Your task to perform on an android device: Is it going to rain this weekend? Image 0: 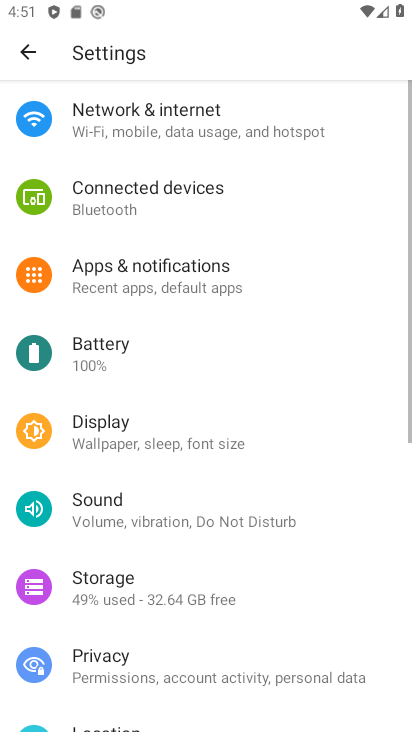
Step 0: press home button
Your task to perform on an android device: Is it going to rain this weekend? Image 1: 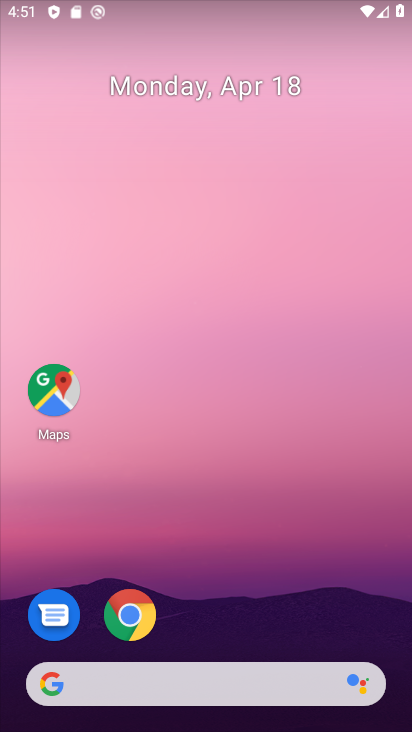
Step 1: drag from (225, 628) to (234, 172)
Your task to perform on an android device: Is it going to rain this weekend? Image 2: 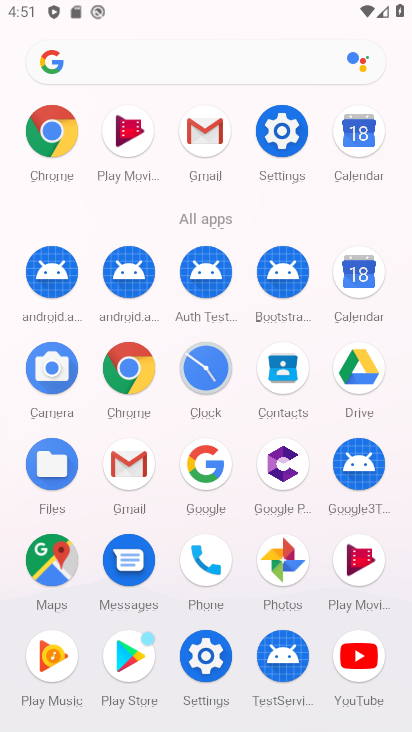
Step 2: click (141, 361)
Your task to perform on an android device: Is it going to rain this weekend? Image 3: 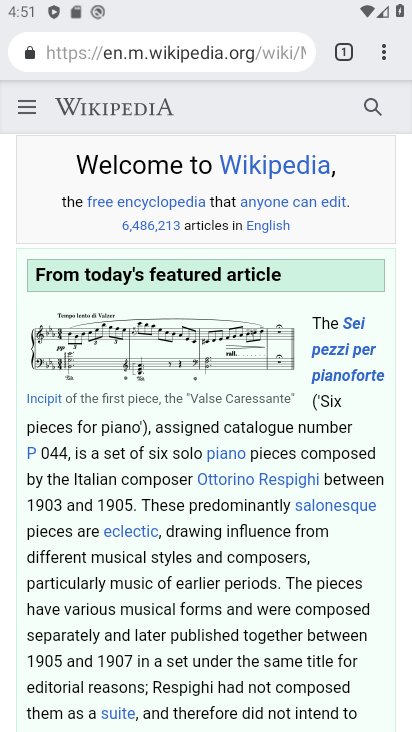
Step 3: drag from (383, 55) to (220, 108)
Your task to perform on an android device: Is it going to rain this weekend? Image 4: 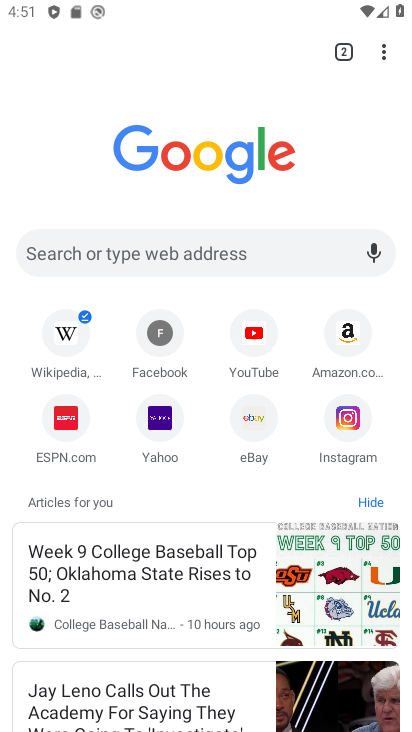
Step 4: click (199, 246)
Your task to perform on an android device: Is it going to rain this weekend? Image 5: 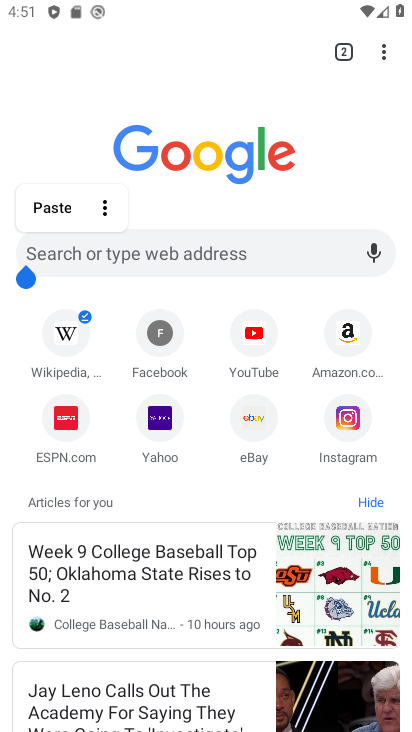
Step 5: click (126, 245)
Your task to perform on an android device: Is it going to rain this weekend? Image 6: 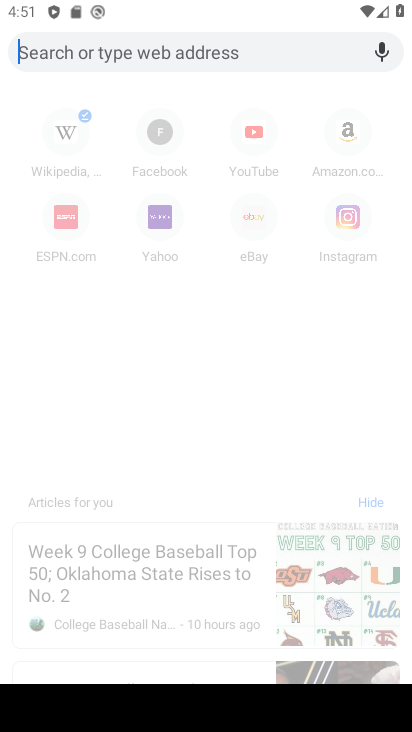
Step 6: type "Is it going to rain this weekend"
Your task to perform on an android device: Is it going to rain this weekend? Image 7: 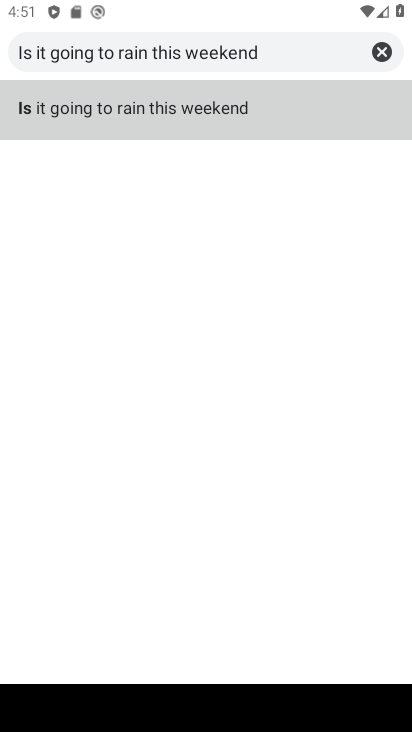
Step 7: click (172, 109)
Your task to perform on an android device: Is it going to rain this weekend? Image 8: 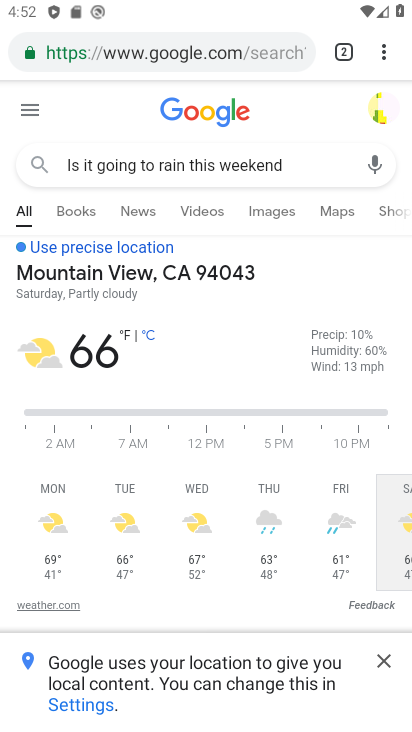
Step 8: task complete